Your task to perform on an android device: visit the assistant section in the google photos Image 0: 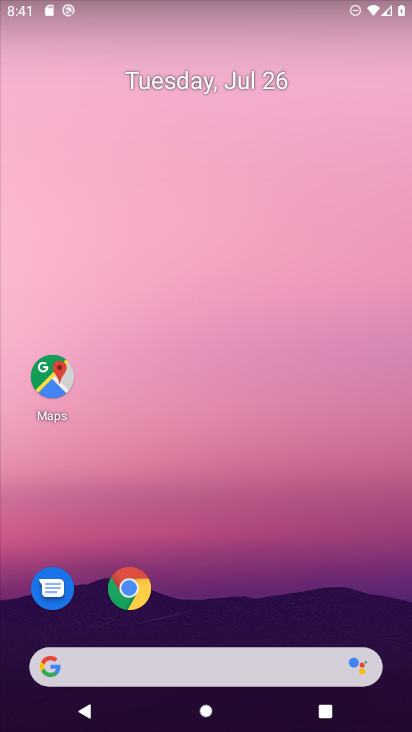
Step 0: drag from (268, 619) to (218, 0)
Your task to perform on an android device: visit the assistant section in the google photos Image 1: 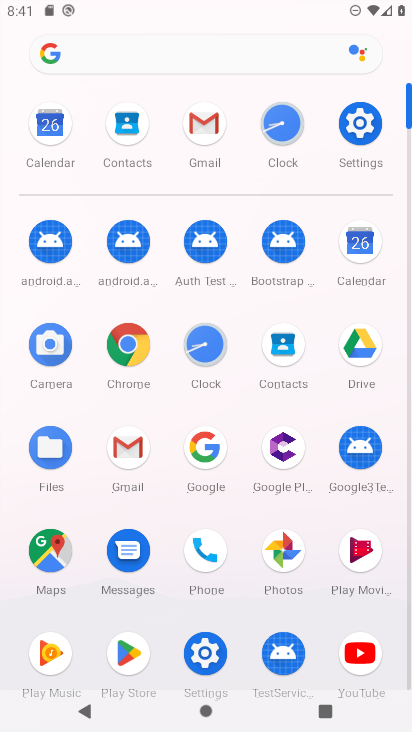
Step 1: click (283, 550)
Your task to perform on an android device: visit the assistant section in the google photos Image 2: 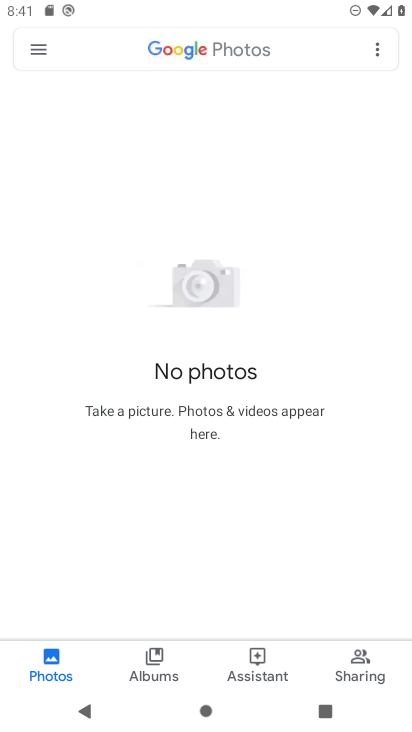
Step 2: click (256, 665)
Your task to perform on an android device: visit the assistant section in the google photos Image 3: 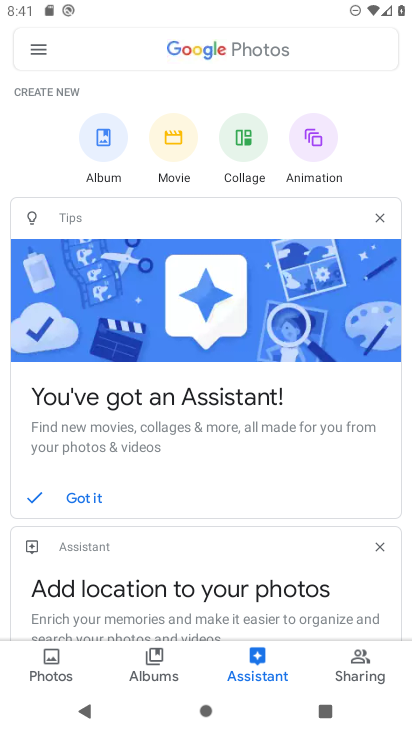
Step 3: task complete